Your task to perform on an android device: Empty the shopping cart on target. Add sony triple a to the cart on target Image 0: 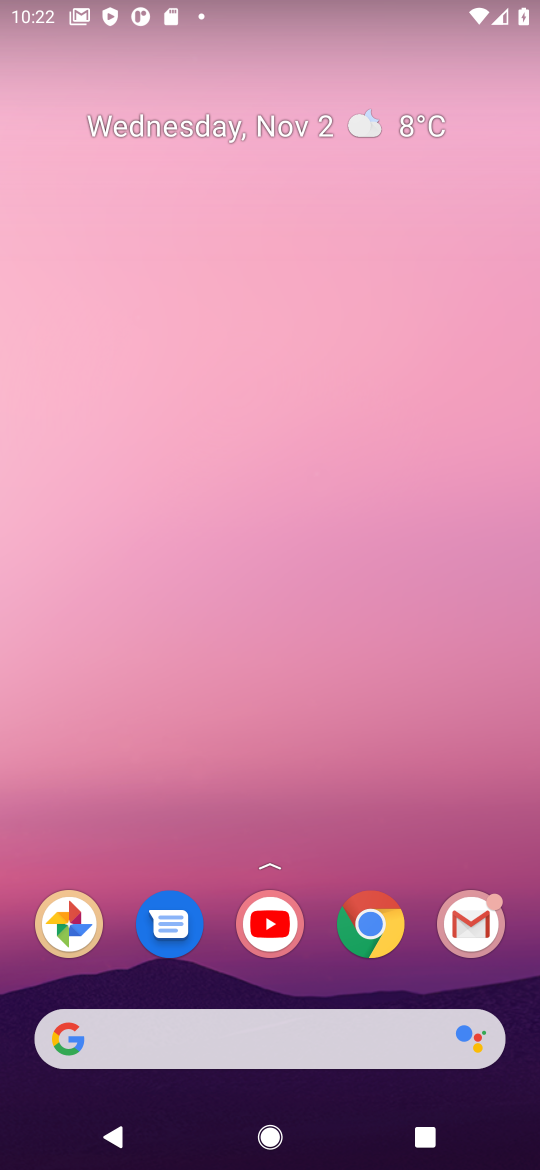
Step 0: click (384, 923)
Your task to perform on an android device: Empty the shopping cart on target. Add sony triple a to the cart on target Image 1: 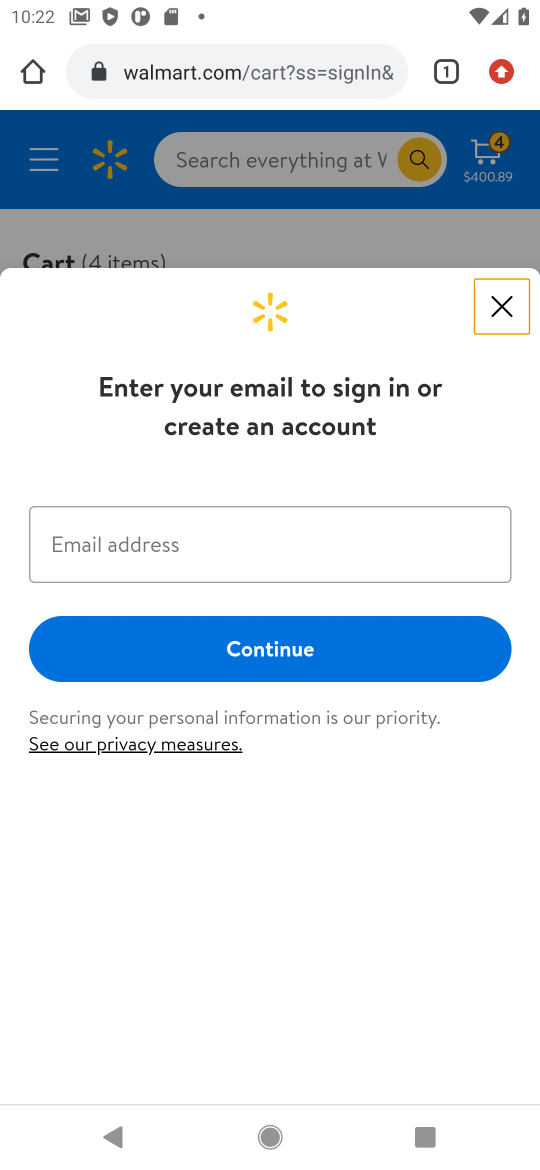
Step 1: click (281, 77)
Your task to perform on an android device: Empty the shopping cart on target. Add sony triple a to the cart on target Image 2: 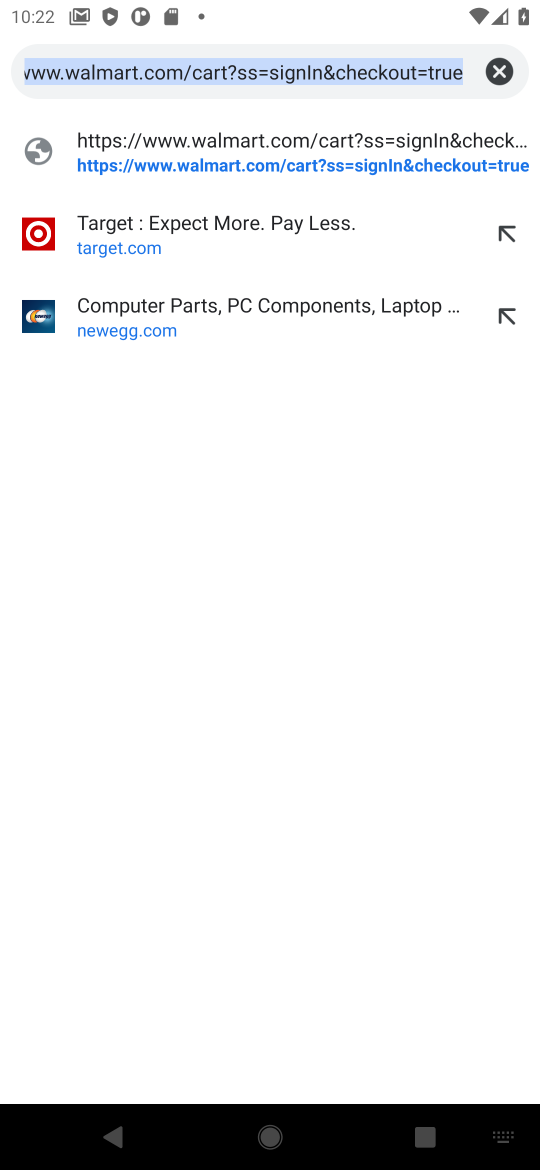
Step 2: click (501, 68)
Your task to perform on an android device: Empty the shopping cart on target. Add sony triple a to the cart on target Image 3: 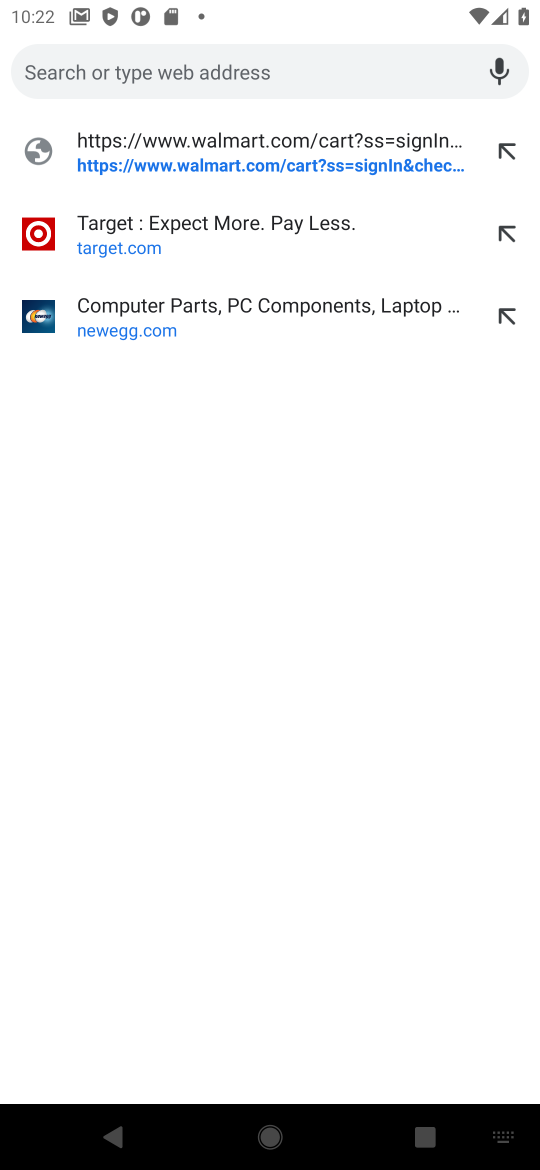
Step 3: type "t"
Your task to perform on an android device: Empty the shopping cart on target. Add sony triple a to the cart on target Image 4: 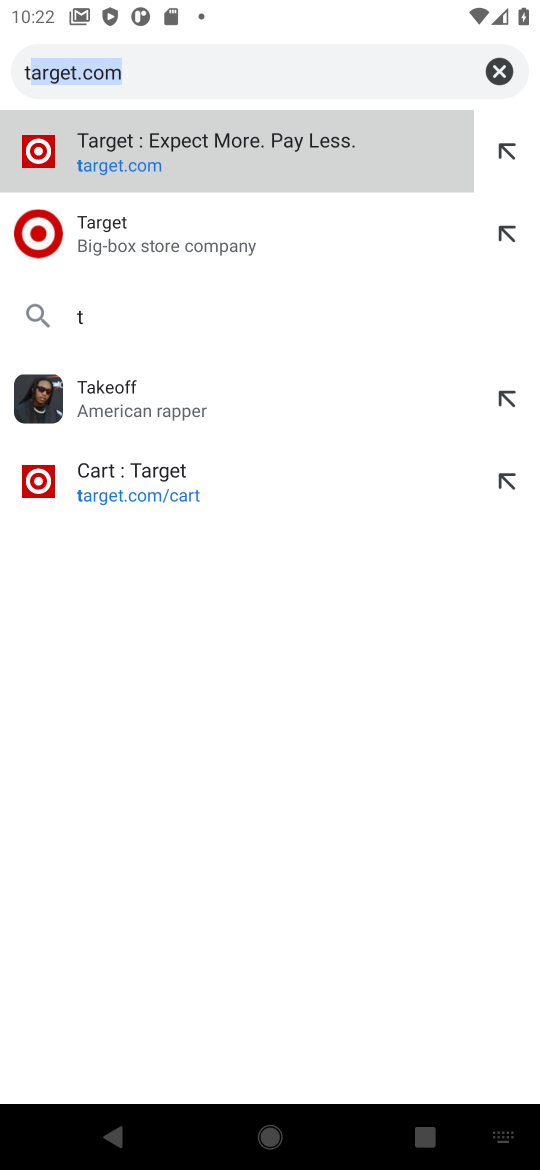
Step 4: type "target"
Your task to perform on an android device: Empty the shopping cart on target. Add sony triple a to the cart on target Image 5: 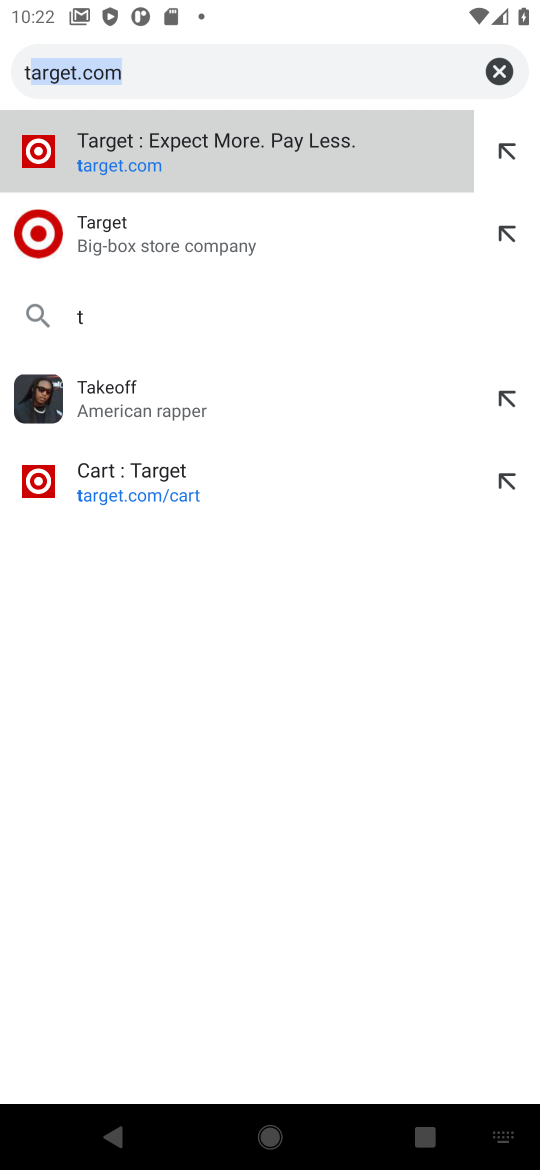
Step 5: click (223, 236)
Your task to perform on an android device: Empty the shopping cart on target. Add sony triple a to the cart on target Image 6: 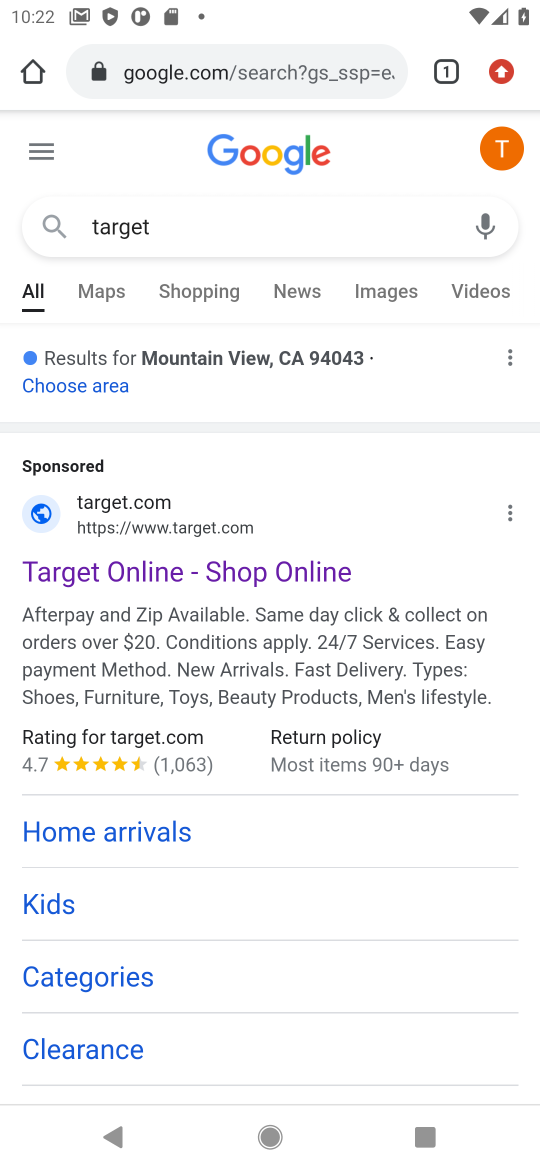
Step 6: click (141, 566)
Your task to perform on an android device: Empty the shopping cart on target. Add sony triple a to the cart on target Image 7: 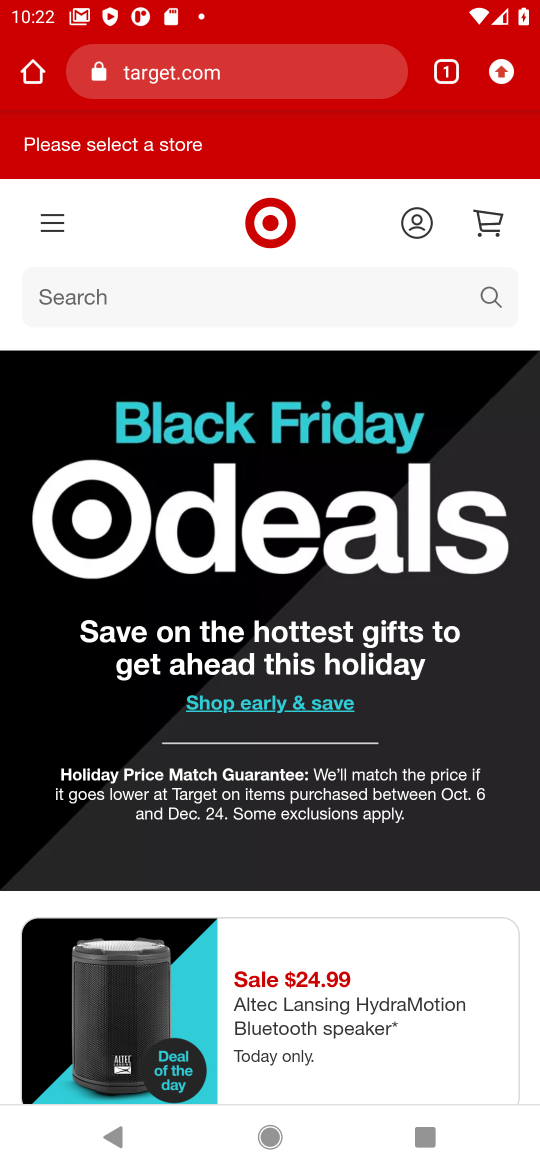
Step 7: click (488, 304)
Your task to perform on an android device: Empty the shopping cart on target. Add sony triple a to the cart on target Image 8: 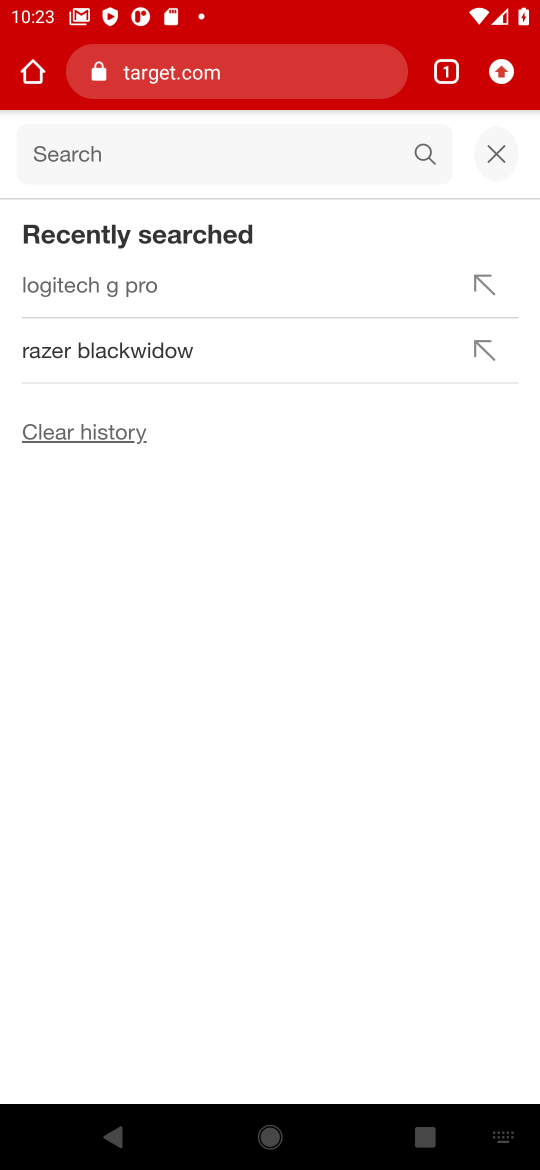
Step 8: type "sony triple a"
Your task to perform on an android device: Empty the shopping cart on target. Add sony triple a to the cart on target Image 9: 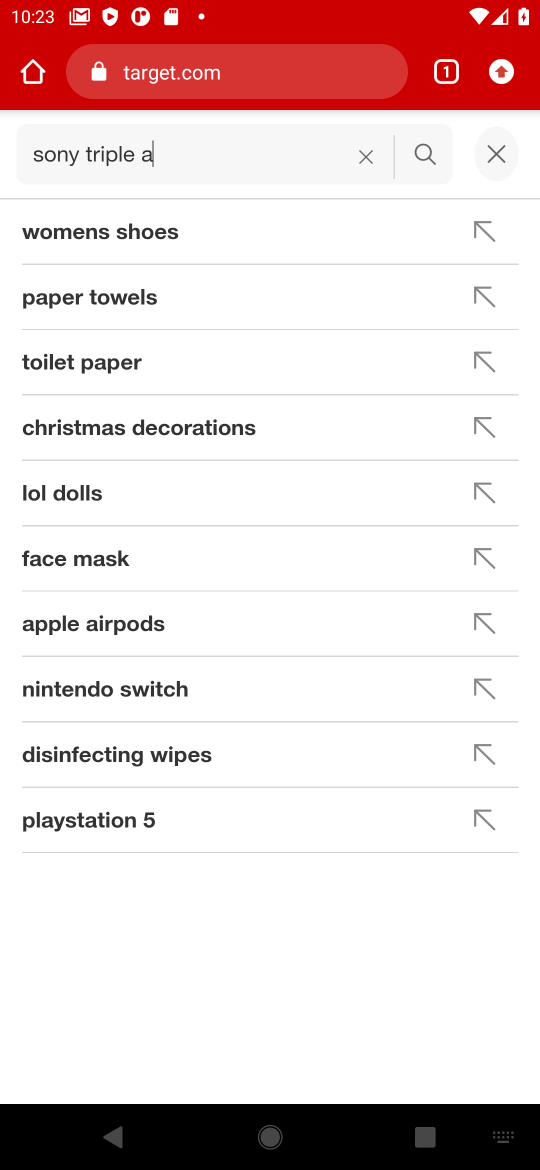
Step 9: type ""
Your task to perform on an android device: Empty the shopping cart on target. Add sony triple a to the cart on target Image 10: 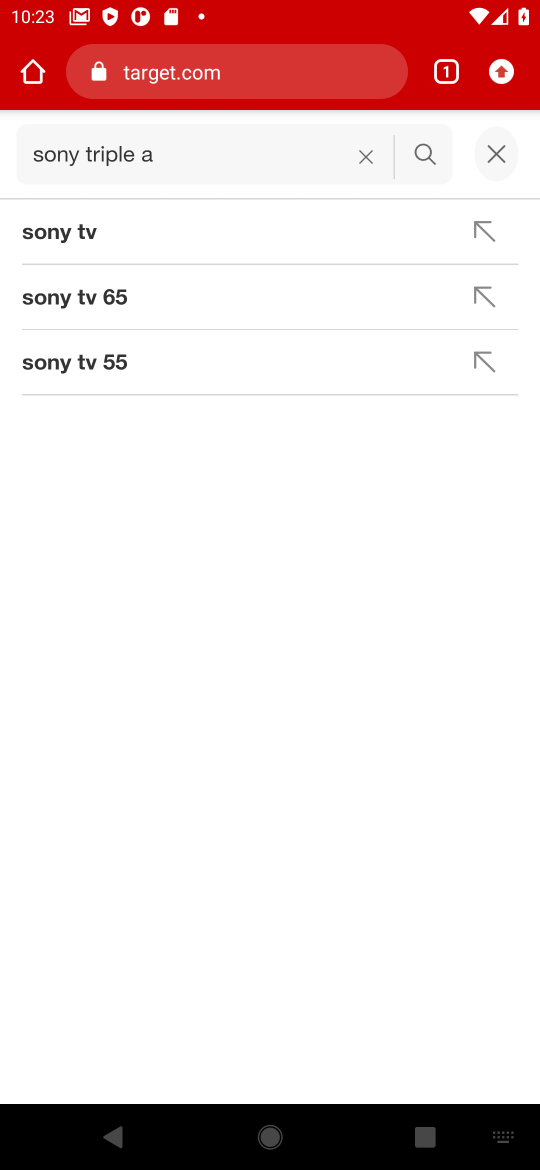
Step 10: click (52, 234)
Your task to perform on an android device: Empty the shopping cart on target. Add sony triple a to the cart on target Image 11: 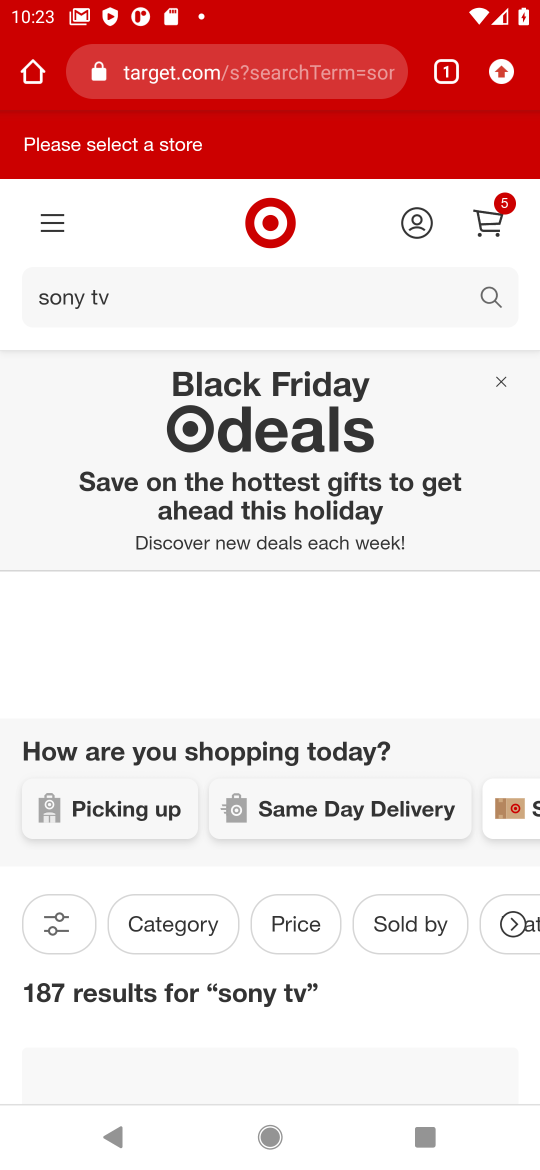
Step 11: drag from (151, 899) to (251, 162)
Your task to perform on an android device: Empty the shopping cart on target. Add sony triple a to the cart on target Image 12: 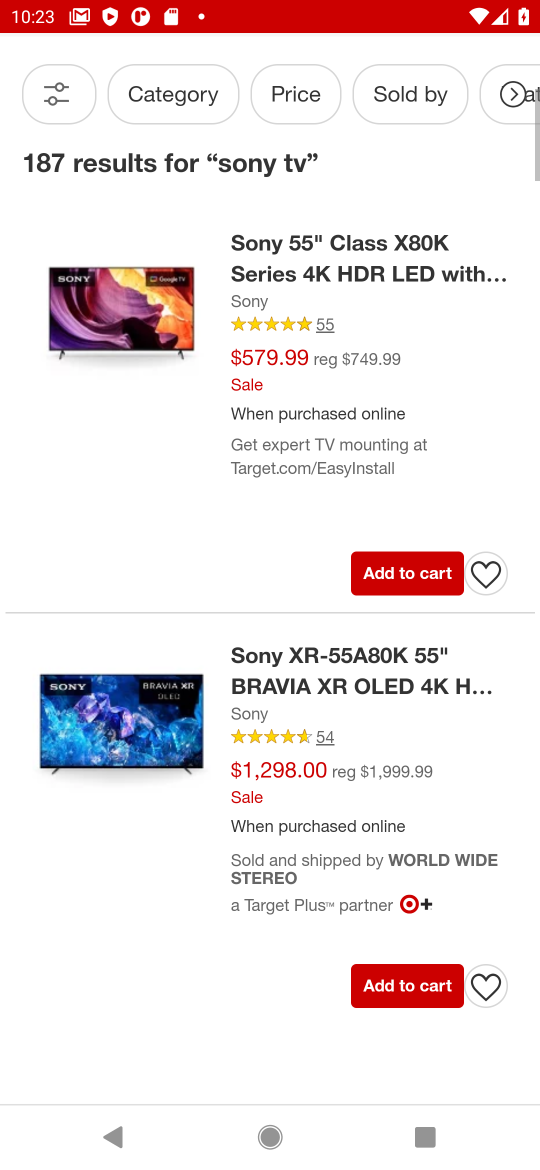
Step 12: drag from (230, 978) to (313, 365)
Your task to perform on an android device: Empty the shopping cart on target. Add sony triple a to the cart on target Image 13: 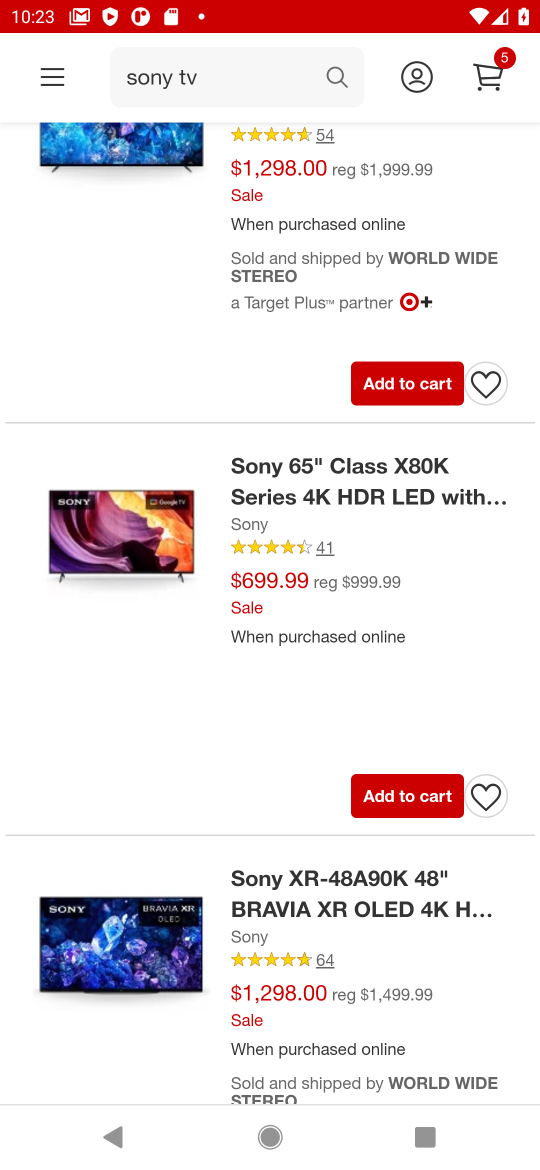
Step 13: drag from (335, 988) to (365, 291)
Your task to perform on an android device: Empty the shopping cart on target. Add sony triple a to the cart on target Image 14: 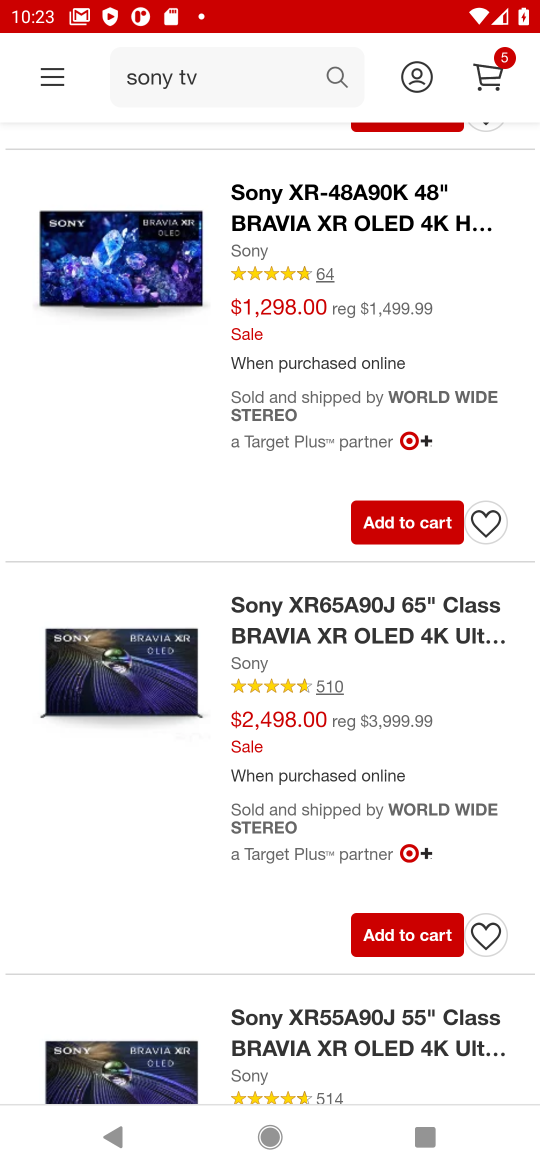
Step 14: click (311, 601)
Your task to perform on an android device: Empty the shopping cart on target. Add sony triple a to the cart on target Image 15: 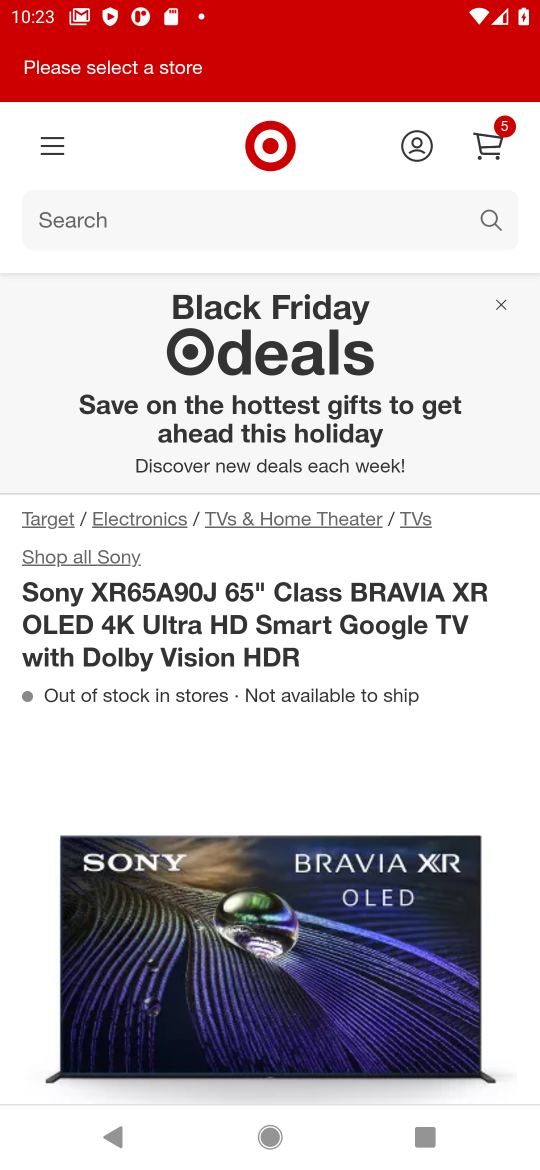
Step 15: drag from (216, 726) to (231, 251)
Your task to perform on an android device: Empty the shopping cart on target. Add sony triple a to the cart on target Image 16: 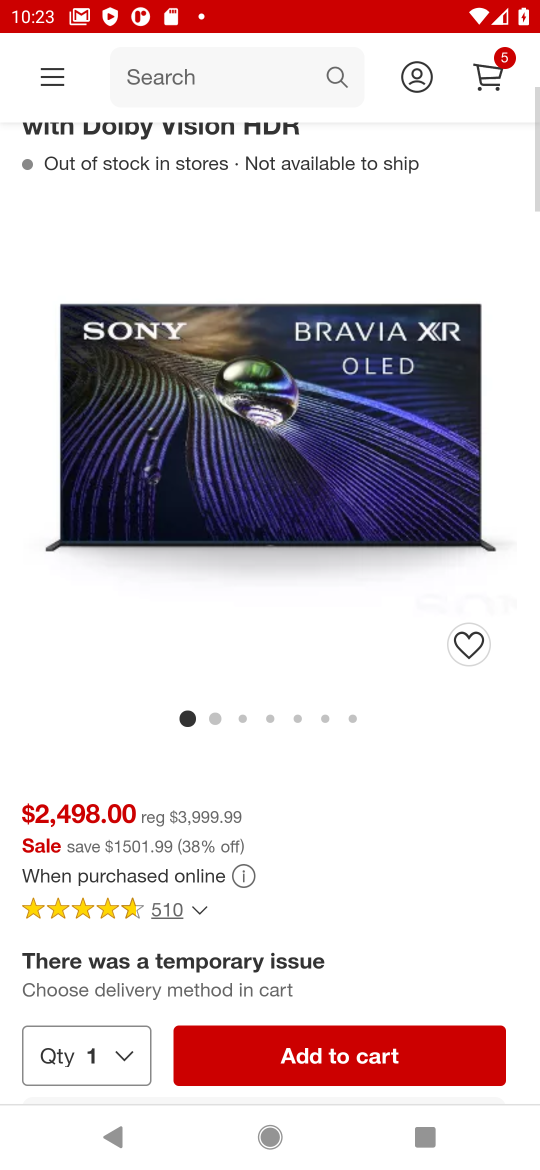
Step 16: drag from (305, 844) to (336, 464)
Your task to perform on an android device: Empty the shopping cart on target. Add sony triple a to the cart on target Image 17: 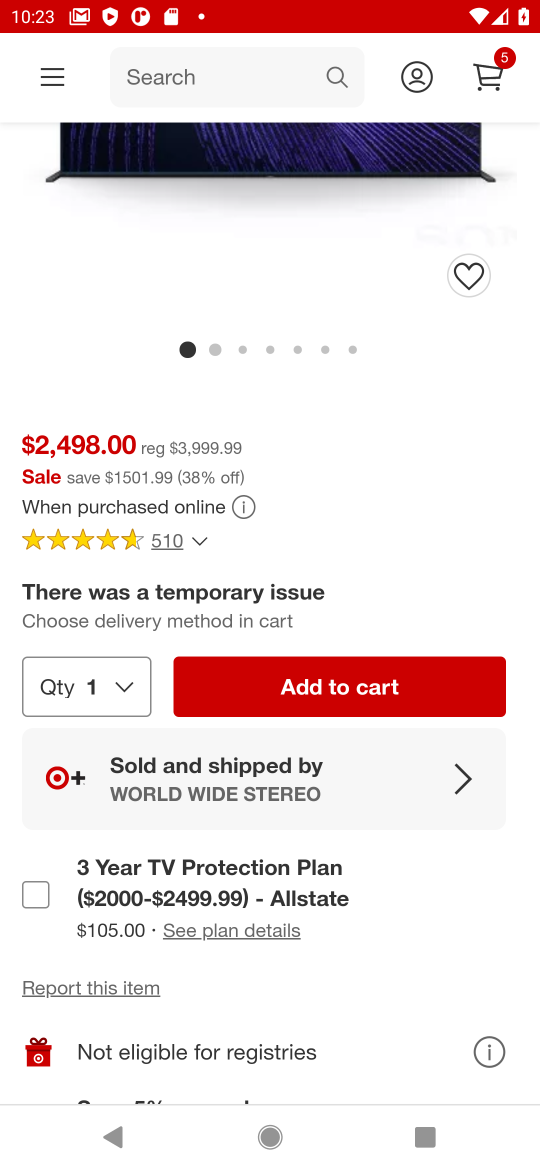
Step 17: click (363, 690)
Your task to perform on an android device: Empty the shopping cart on target. Add sony triple a to the cart on target Image 18: 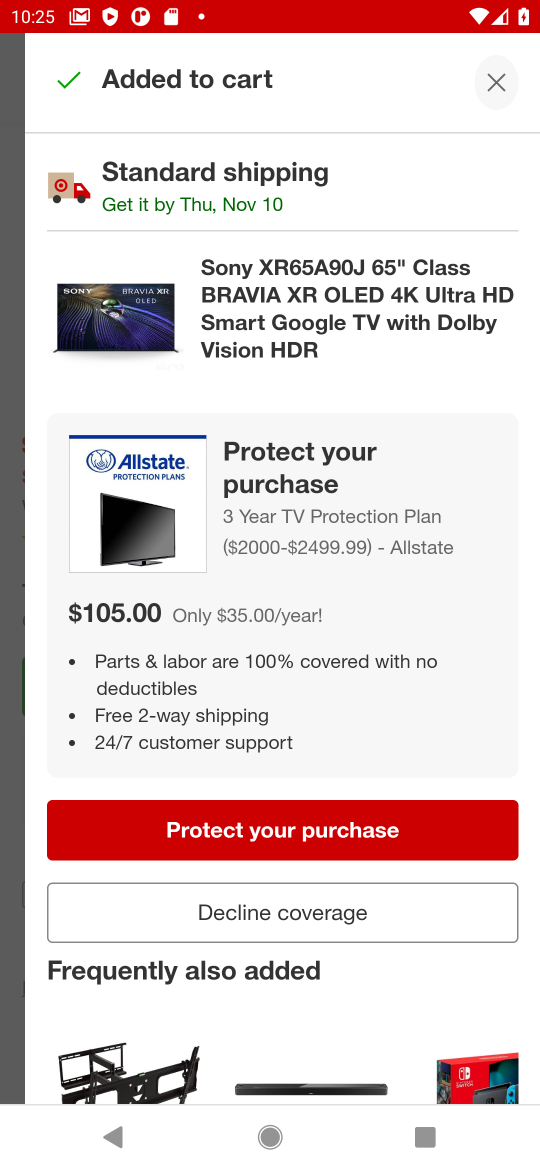
Step 18: click (286, 844)
Your task to perform on an android device: Empty the shopping cart on target. Add sony triple a to the cart on target Image 19: 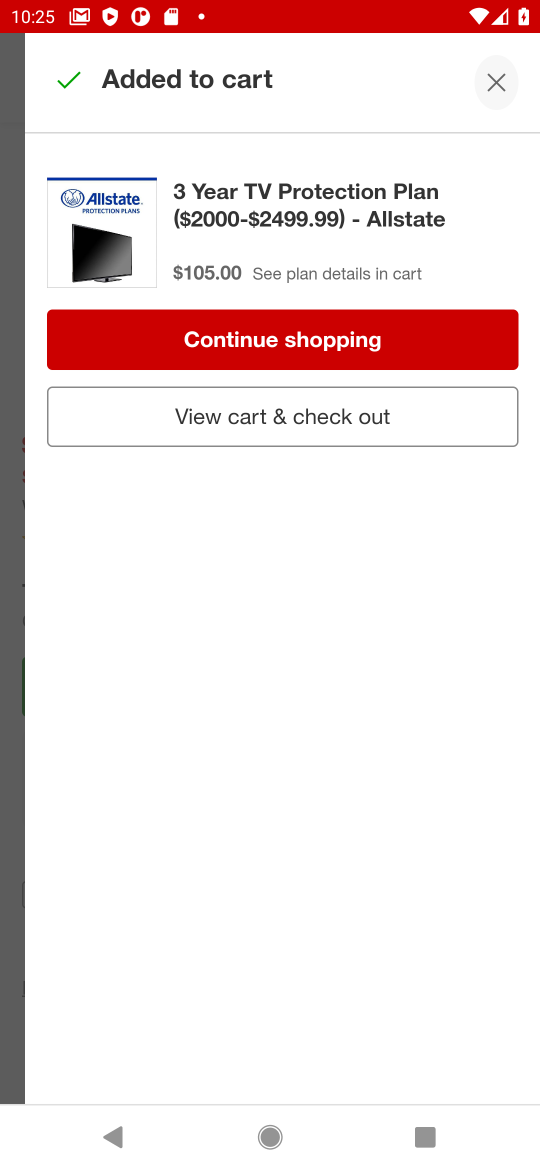
Step 19: task complete